Your task to perform on an android device: open a new tab in the chrome app Image 0: 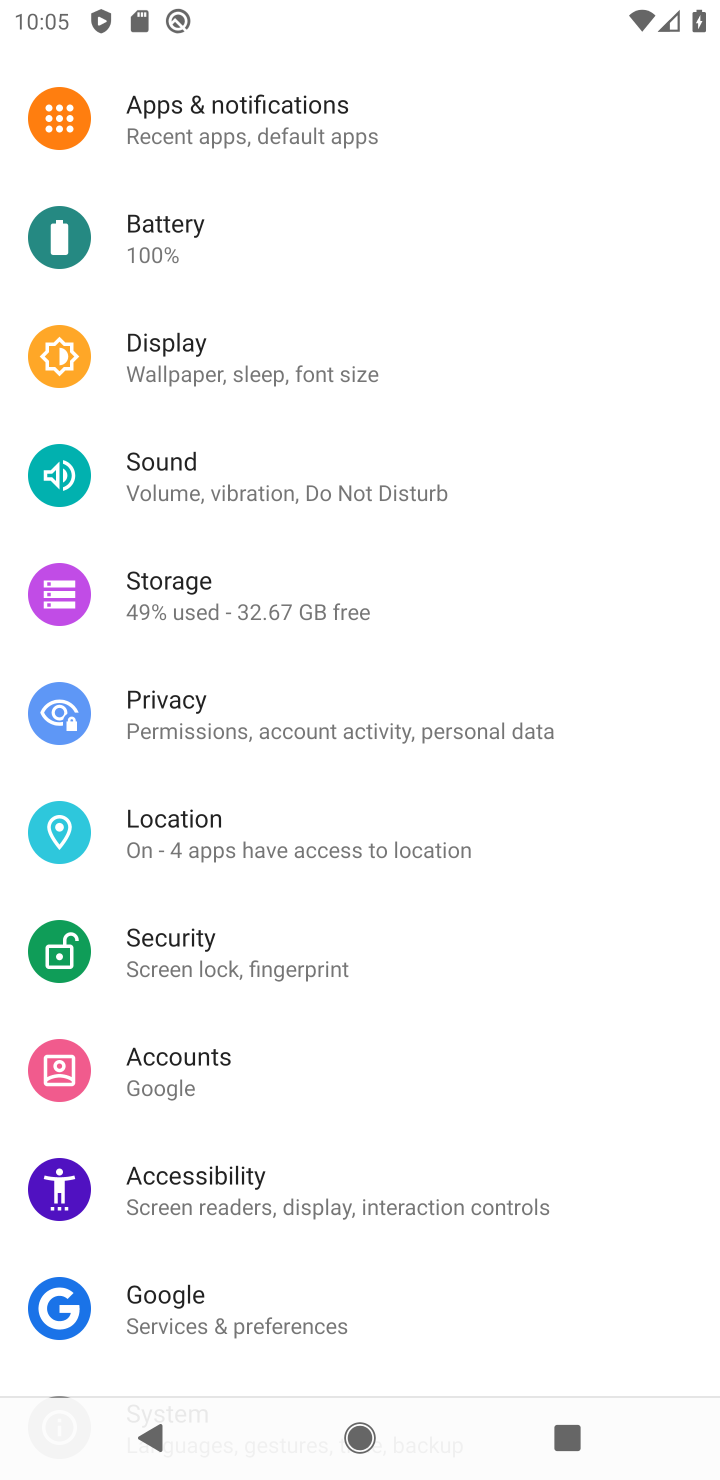
Step 0: press home button
Your task to perform on an android device: open a new tab in the chrome app Image 1: 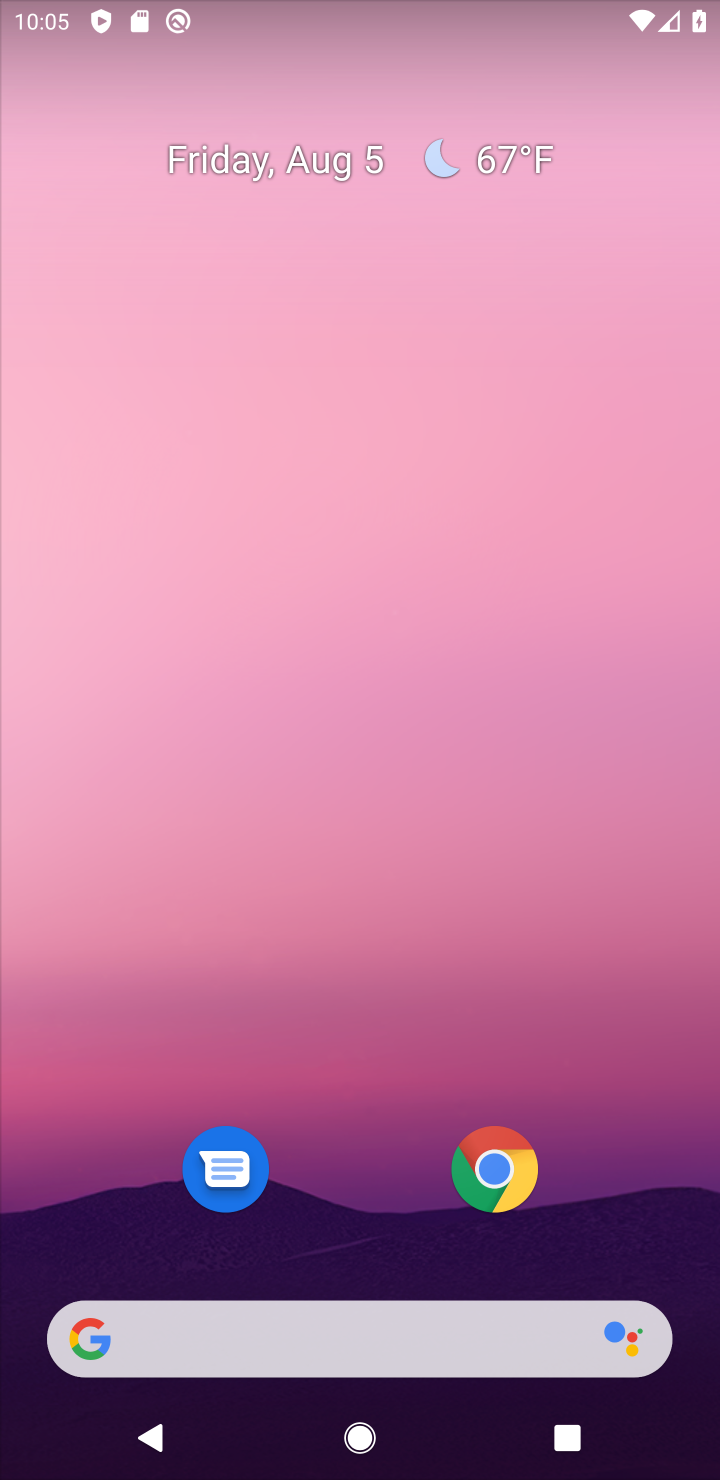
Step 1: click (493, 1170)
Your task to perform on an android device: open a new tab in the chrome app Image 2: 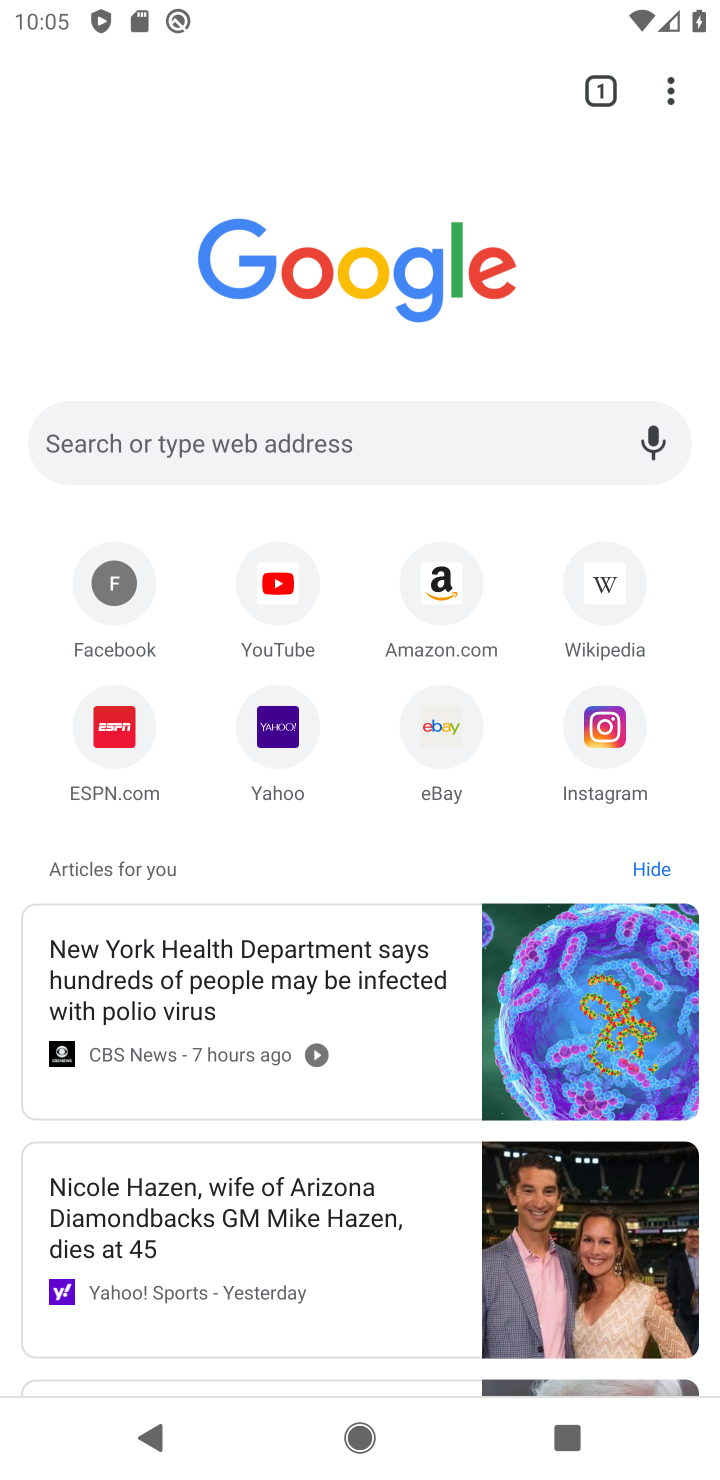
Step 2: click (662, 99)
Your task to perform on an android device: open a new tab in the chrome app Image 3: 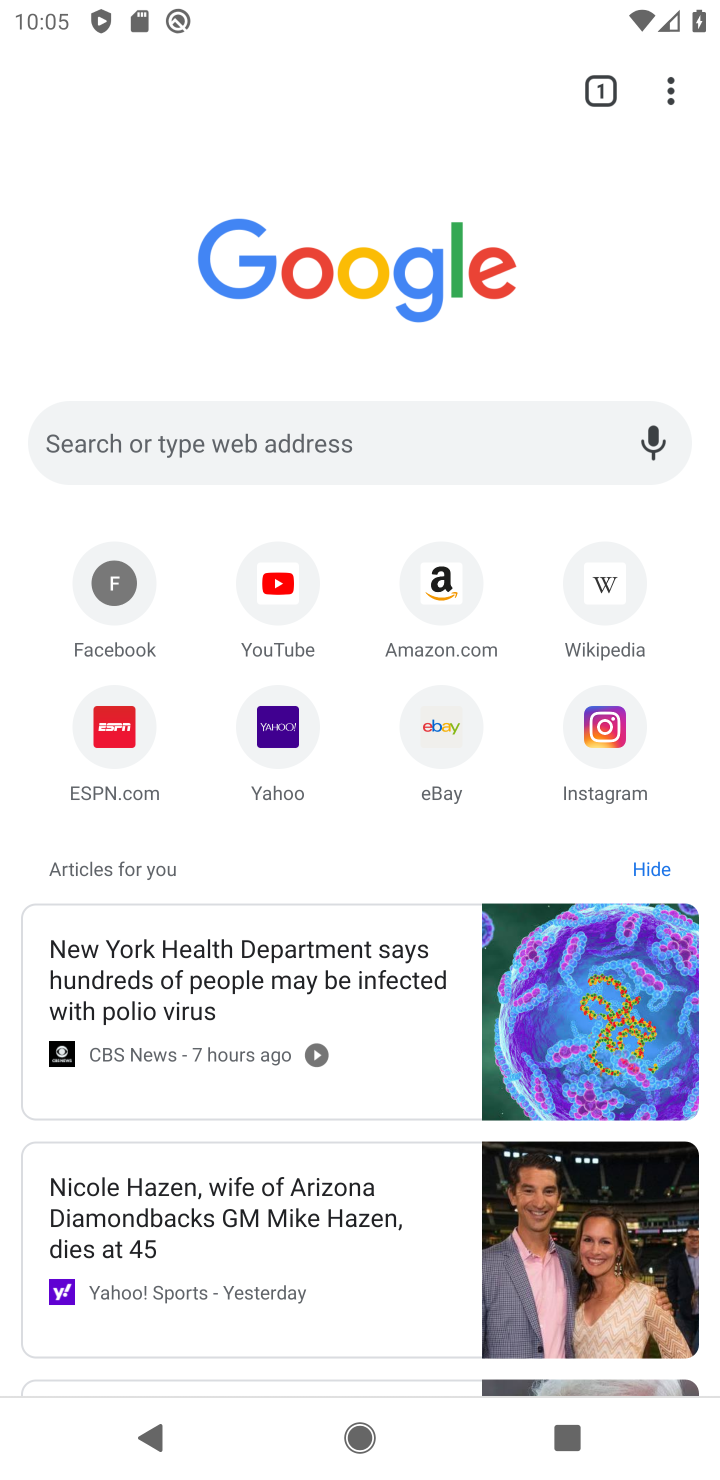
Step 3: click (663, 108)
Your task to perform on an android device: open a new tab in the chrome app Image 4: 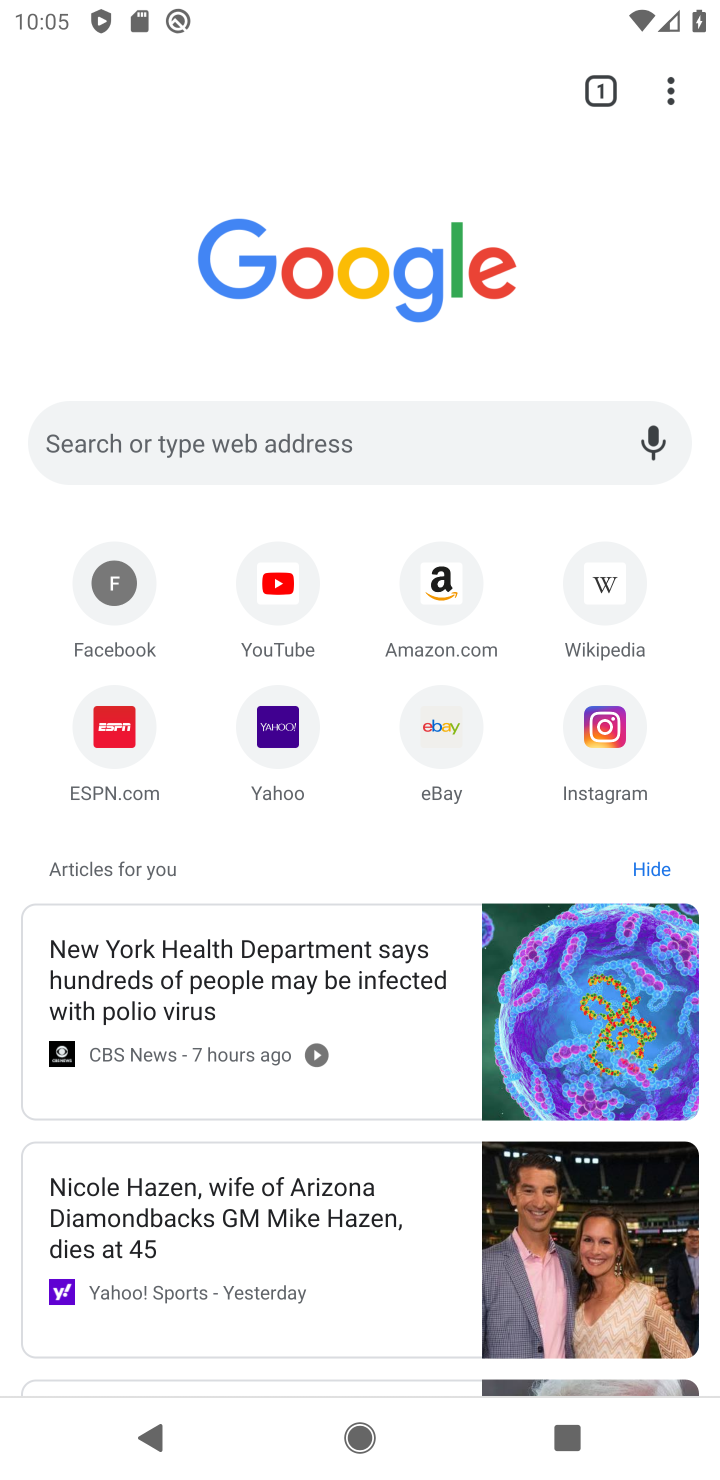
Step 4: click (663, 97)
Your task to perform on an android device: open a new tab in the chrome app Image 5: 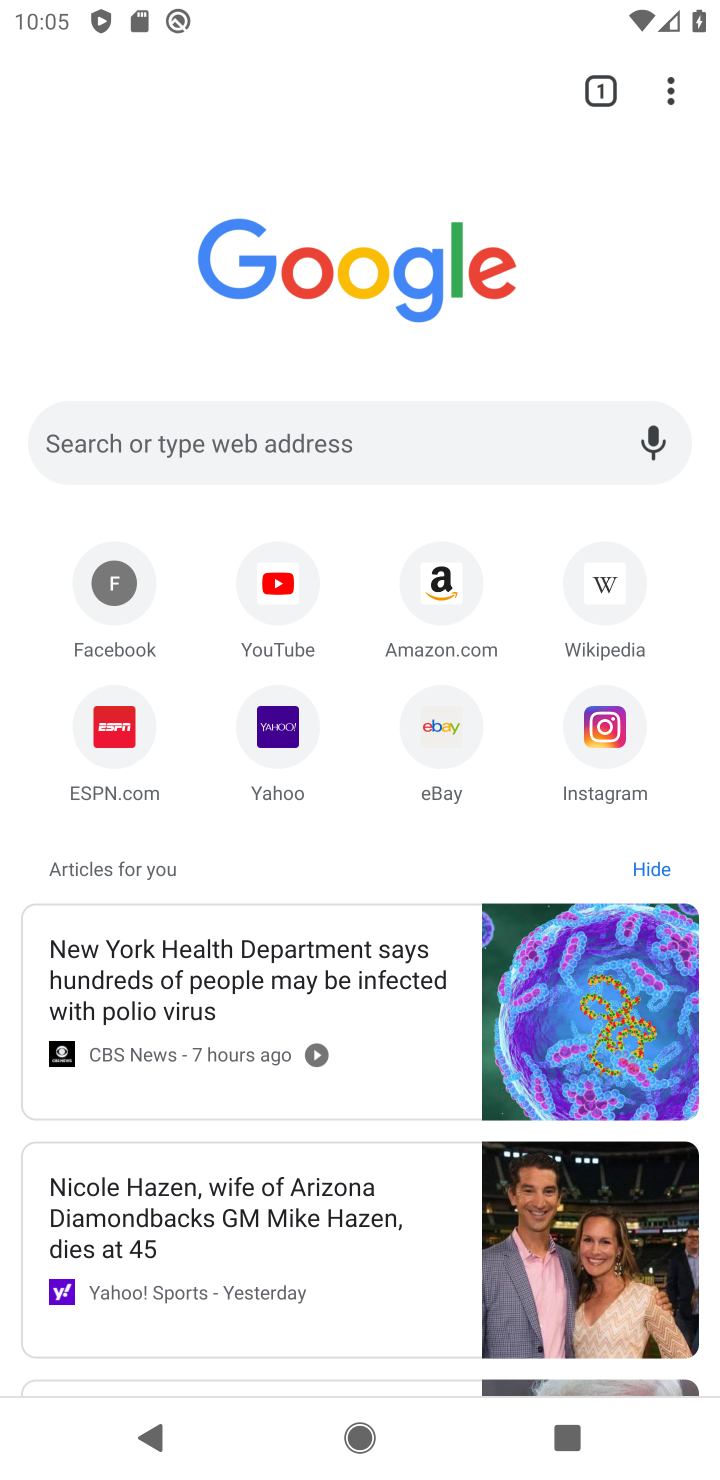
Step 5: click (663, 106)
Your task to perform on an android device: open a new tab in the chrome app Image 6: 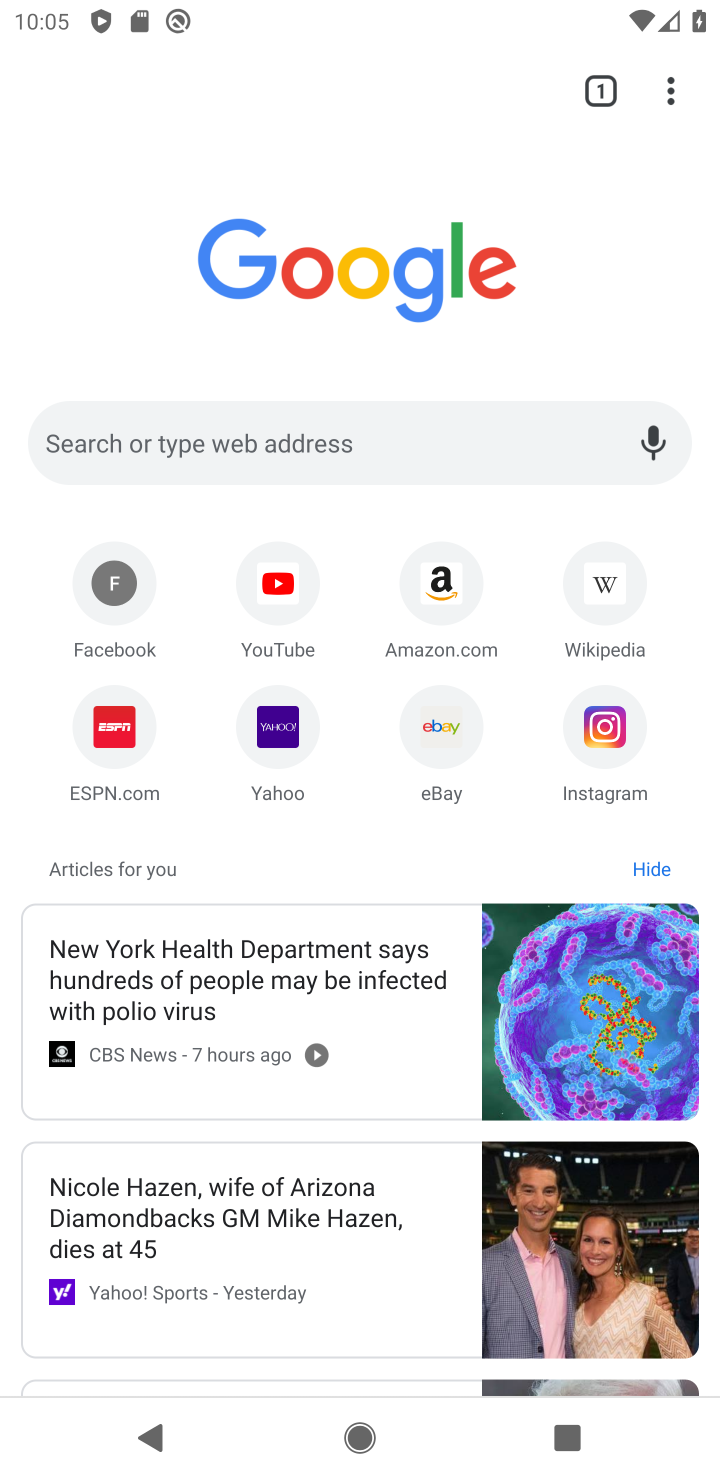
Step 6: click (669, 108)
Your task to perform on an android device: open a new tab in the chrome app Image 7: 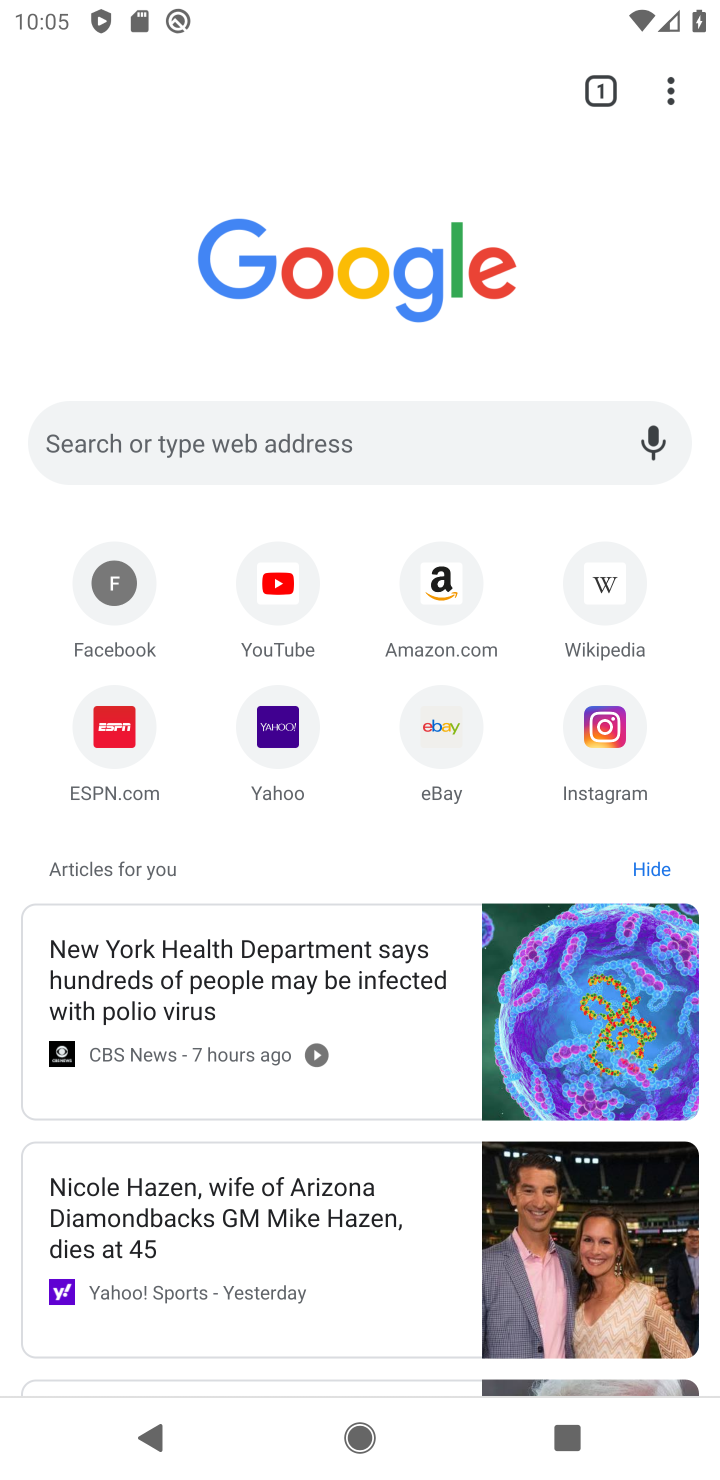
Step 7: click (660, 101)
Your task to perform on an android device: open a new tab in the chrome app Image 8: 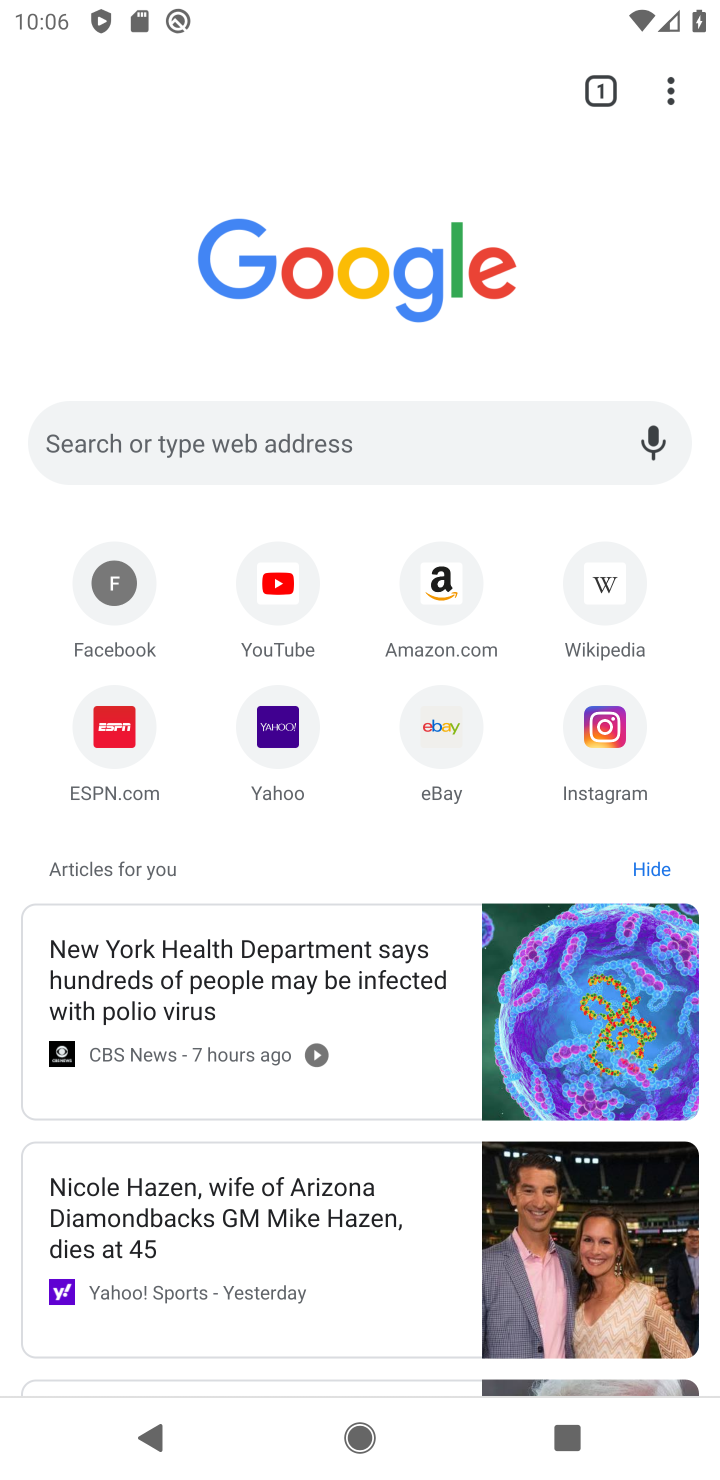
Step 8: click (650, 111)
Your task to perform on an android device: open a new tab in the chrome app Image 9: 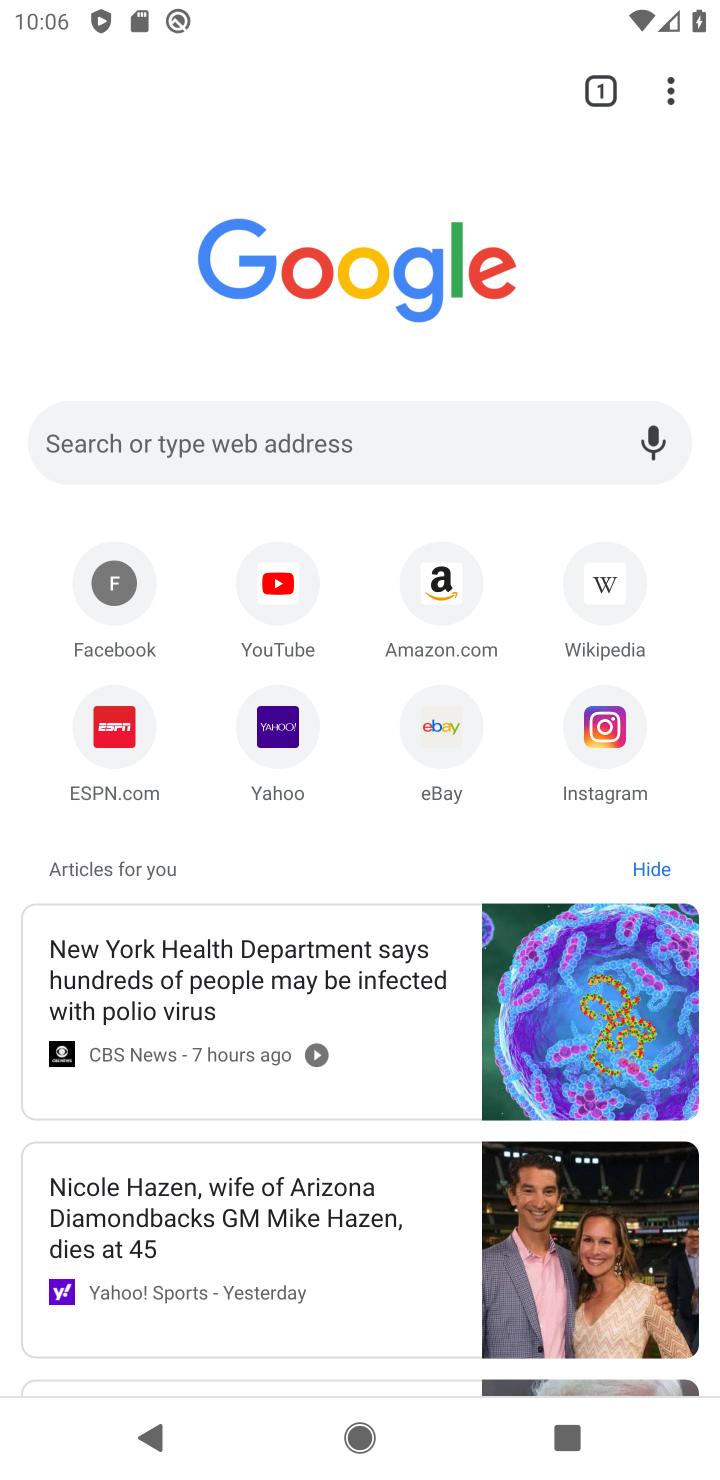
Step 9: click (666, 88)
Your task to perform on an android device: open a new tab in the chrome app Image 10: 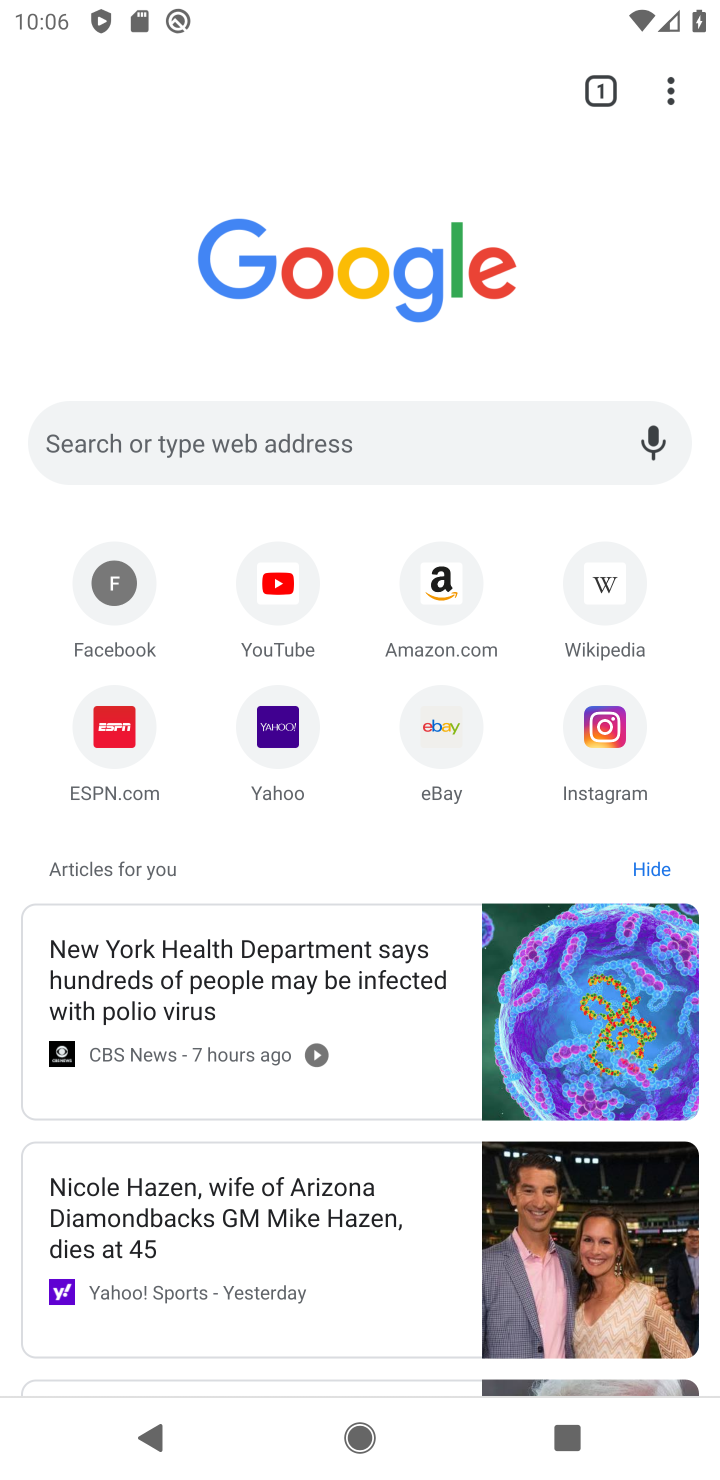
Step 10: task complete